Your task to perform on an android device: Open the web browser Image 0: 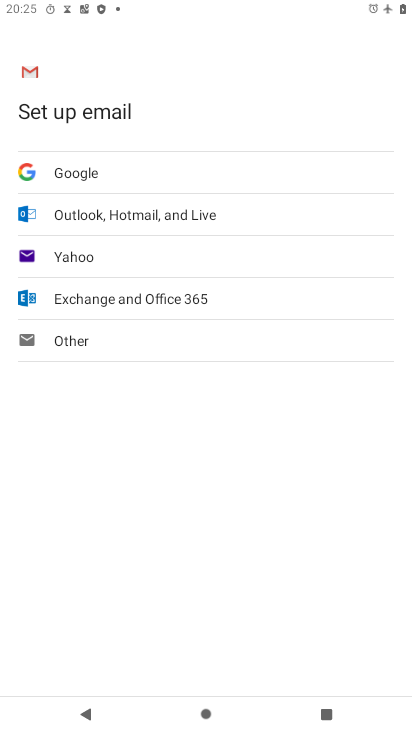
Step 0: press home button
Your task to perform on an android device: Open the web browser Image 1: 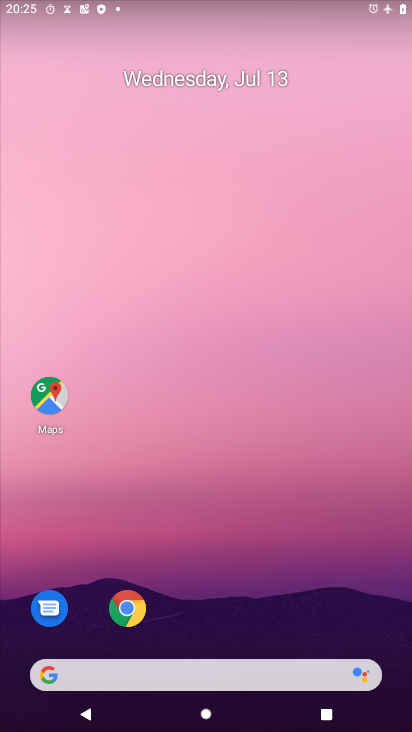
Step 1: click (191, 667)
Your task to perform on an android device: Open the web browser Image 2: 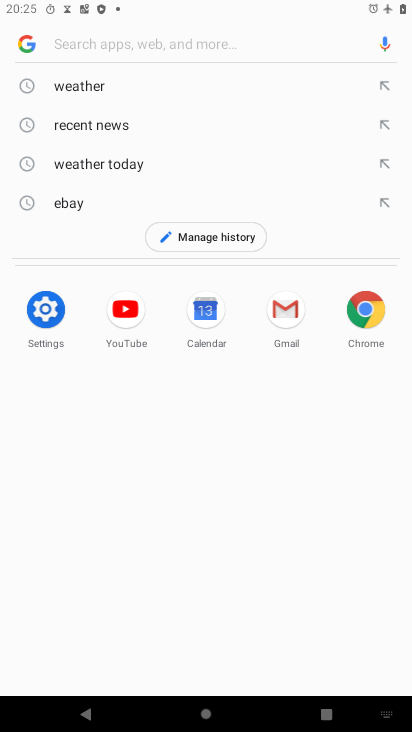
Step 2: task complete